Your task to perform on an android device: visit the assistant section in the google photos Image 0: 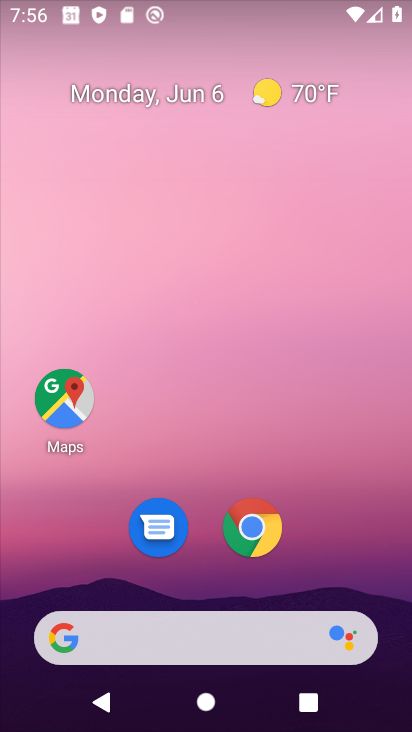
Step 0: drag from (237, 502) to (244, 316)
Your task to perform on an android device: visit the assistant section in the google photos Image 1: 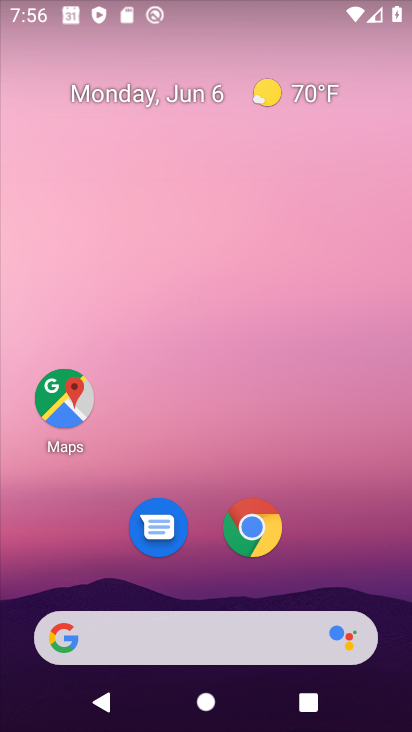
Step 1: drag from (202, 632) to (284, 99)
Your task to perform on an android device: visit the assistant section in the google photos Image 2: 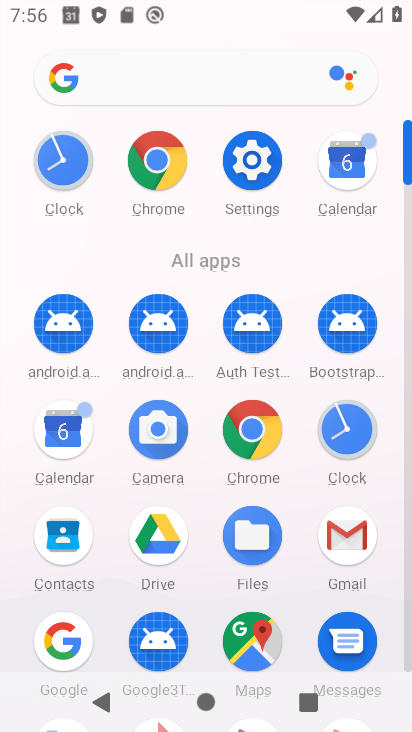
Step 2: drag from (196, 520) to (232, 212)
Your task to perform on an android device: visit the assistant section in the google photos Image 3: 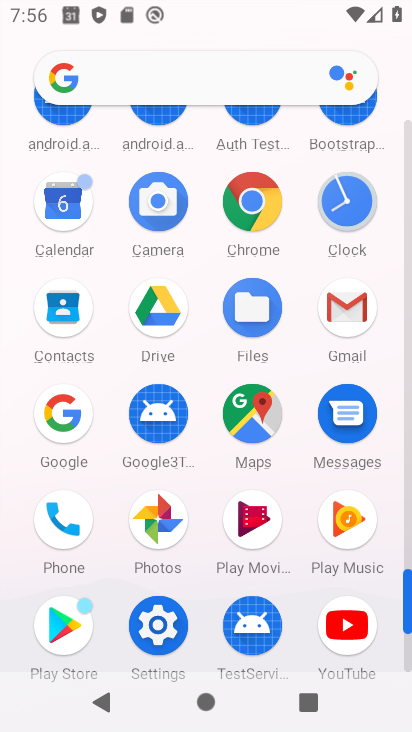
Step 3: click (156, 549)
Your task to perform on an android device: visit the assistant section in the google photos Image 4: 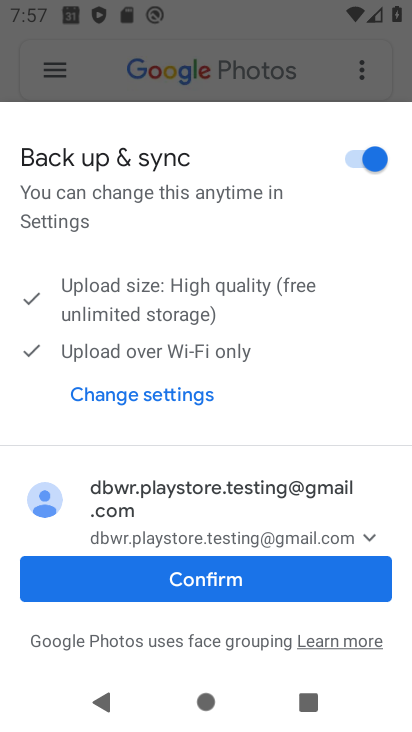
Step 4: click (300, 589)
Your task to perform on an android device: visit the assistant section in the google photos Image 5: 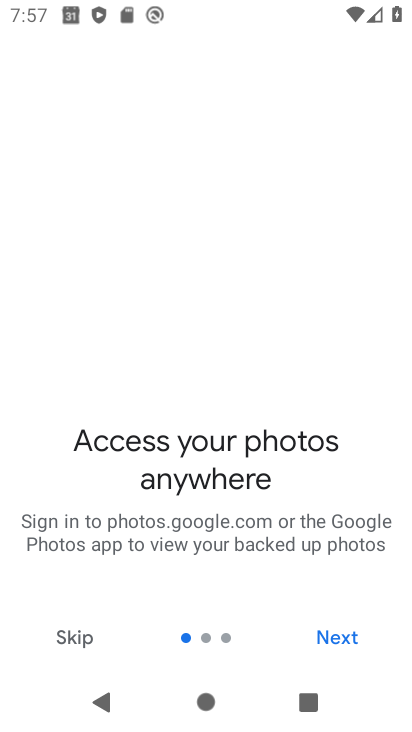
Step 5: click (349, 640)
Your task to perform on an android device: visit the assistant section in the google photos Image 6: 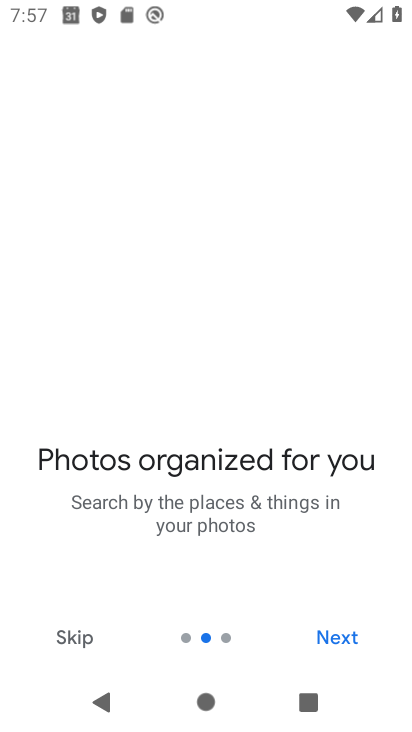
Step 6: click (349, 640)
Your task to perform on an android device: visit the assistant section in the google photos Image 7: 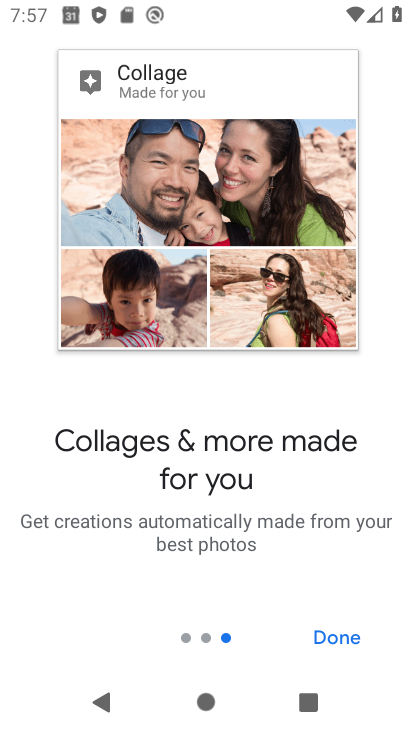
Step 7: click (343, 634)
Your task to perform on an android device: visit the assistant section in the google photos Image 8: 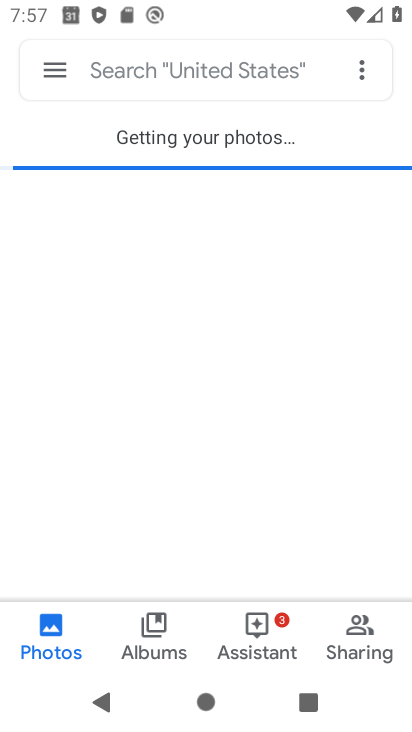
Step 8: click (268, 646)
Your task to perform on an android device: visit the assistant section in the google photos Image 9: 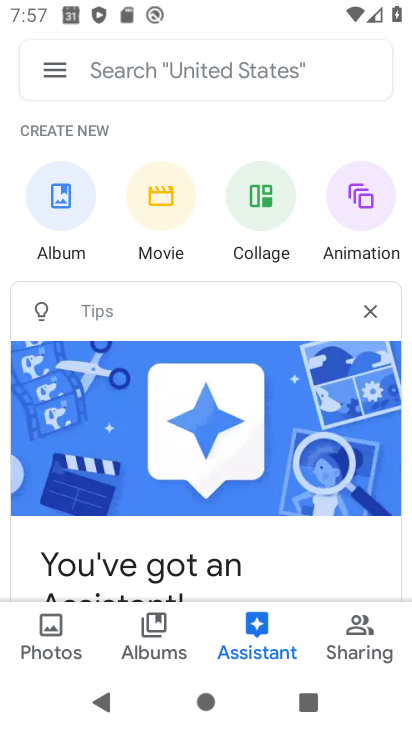
Step 9: task complete